Your task to perform on an android device: Open the stopwatch Image 0: 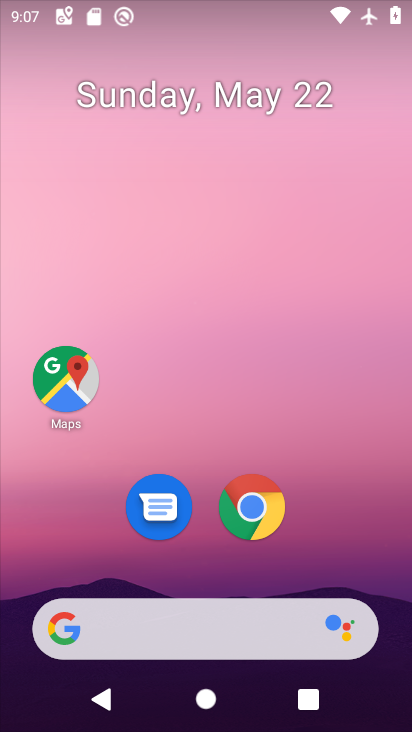
Step 0: drag from (196, 574) to (267, 109)
Your task to perform on an android device: Open the stopwatch Image 1: 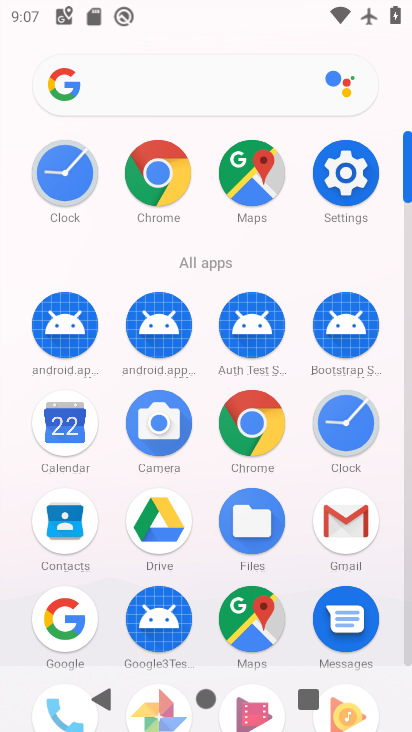
Step 1: click (332, 419)
Your task to perform on an android device: Open the stopwatch Image 2: 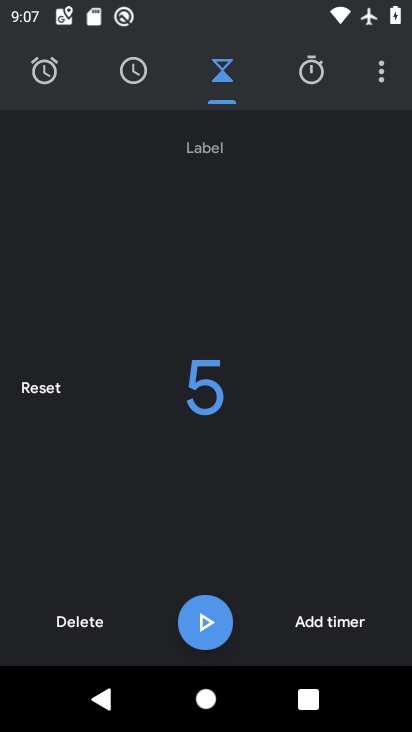
Step 2: click (333, 78)
Your task to perform on an android device: Open the stopwatch Image 3: 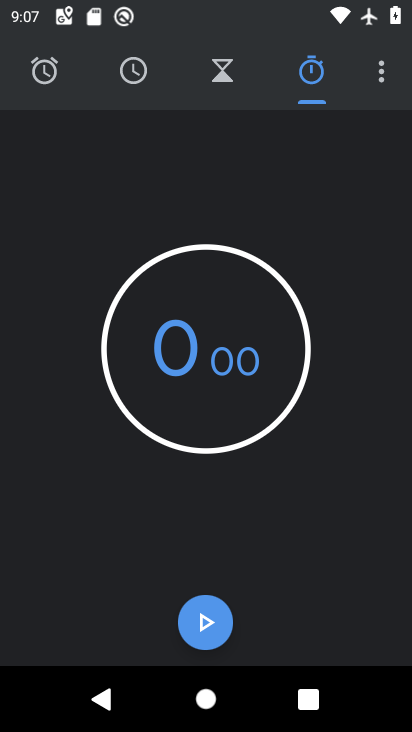
Step 3: click (193, 618)
Your task to perform on an android device: Open the stopwatch Image 4: 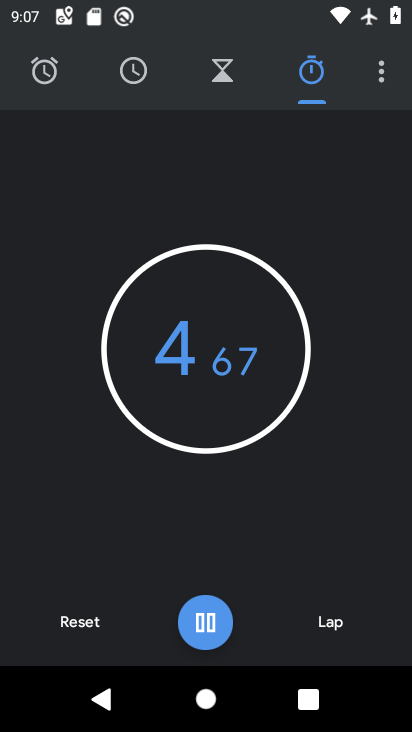
Step 4: click (205, 632)
Your task to perform on an android device: Open the stopwatch Image 5: 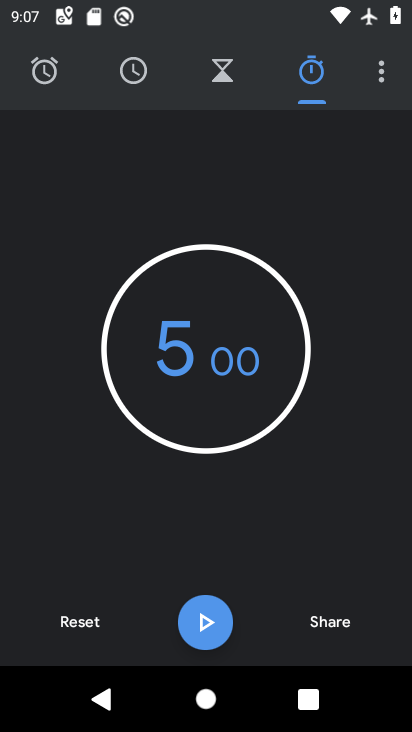
Step 5: task complete